Your task to perform on an android device: turn off smart reply in the gmail app Image 0: 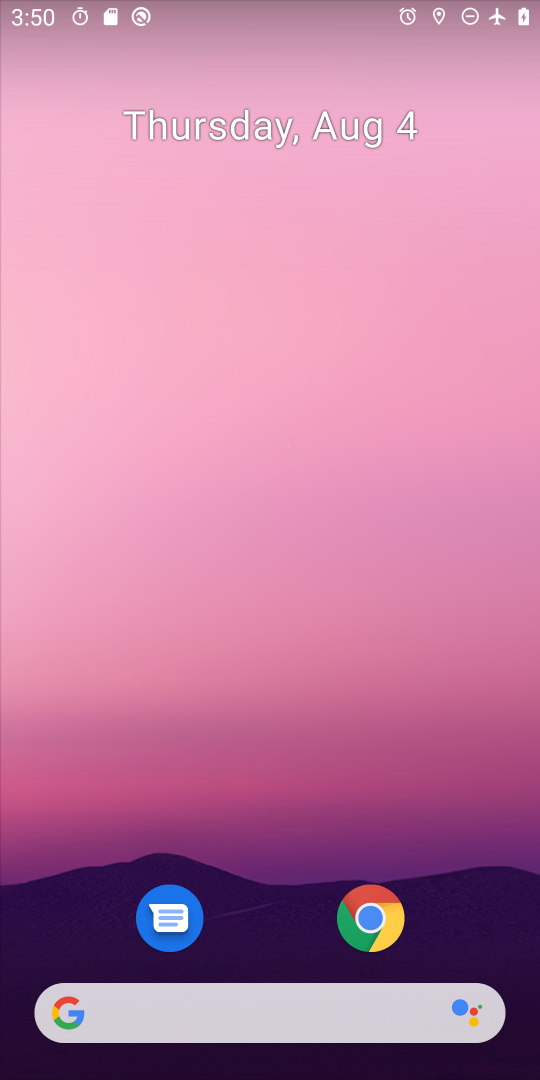
Step 0: drag from (278, 911) to (304, 286)
Your task to perform on an android device: turn off smart reply in the gmail app Image 1: 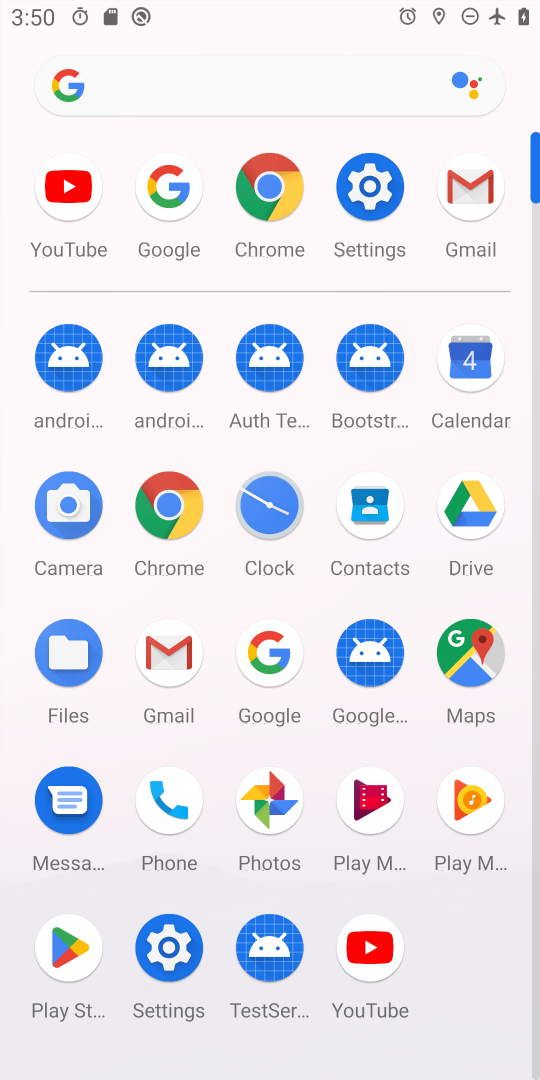
Step 1: click (473, 199)
Your task to perform on an android device: turn off smart reply in the gmail app Image 2: 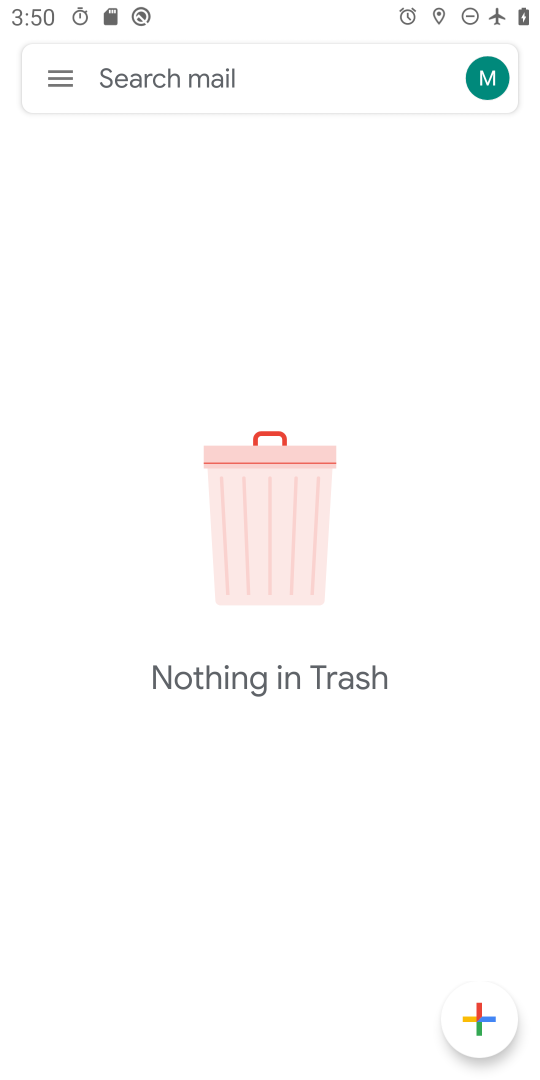
Step 2: click (46, 76)
Your task to perform on an android device: turn off smart reply in the gmail app Image 3: 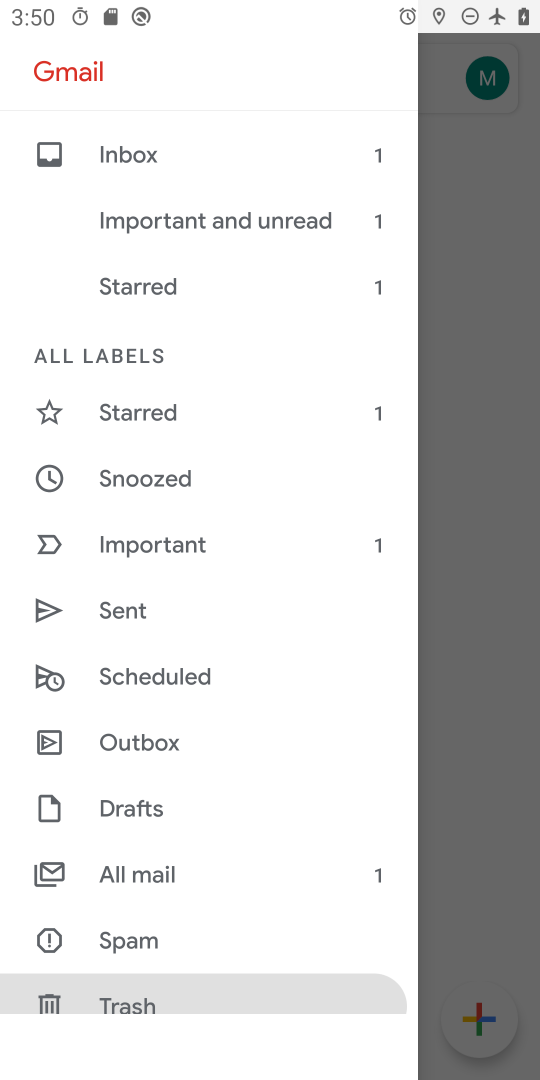
Step 3: drag from (201, 947) to (210, 302)
Your task to perform on an android device: turn off smart reply in the gmail app Image 4: 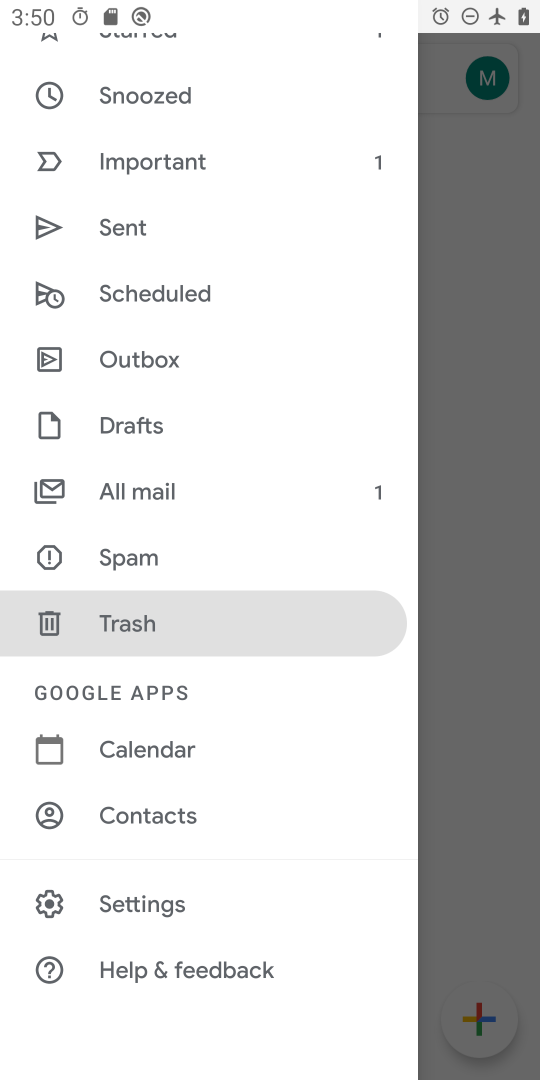
Step 4: click (102, 915)
Your task to perform on an android device: turn off smart reply in the gmail app Image 5: 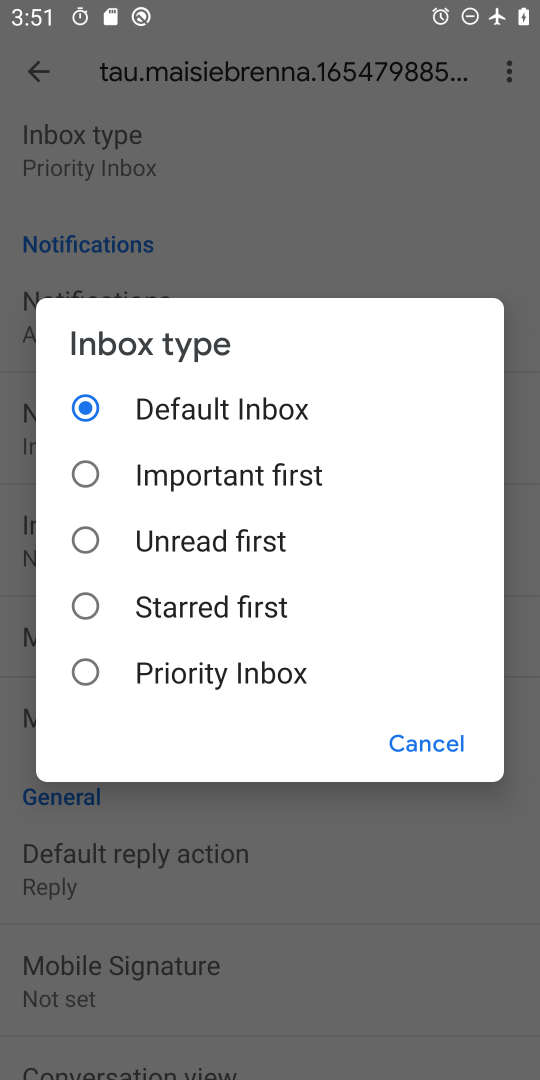
Step 5: click (422, 733)
Your task to perform on an android device: turn off smart reply in the gmail app Image 6: 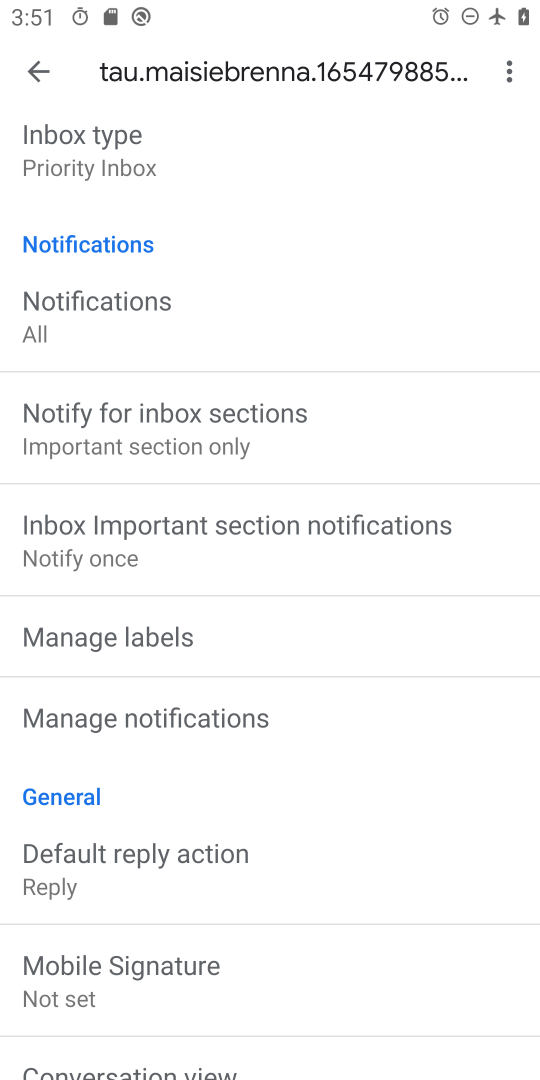
Step 6: task complete